Your task to perform on an android device: Check the news Image 0: 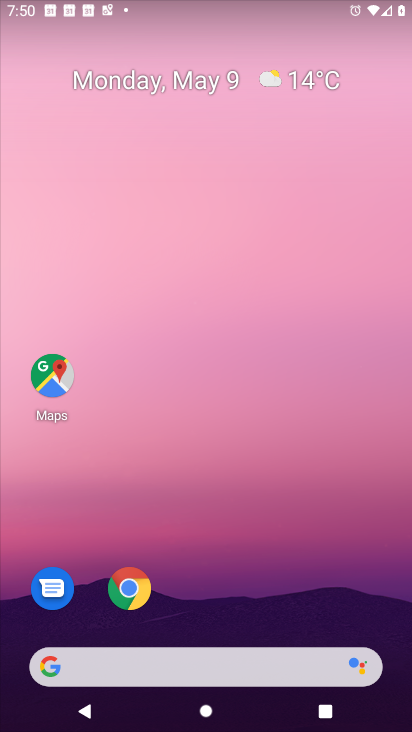
Step 0: drag from (367, 621) to (278, 145)
Your task to perform on an android device: Check the news Image 1: 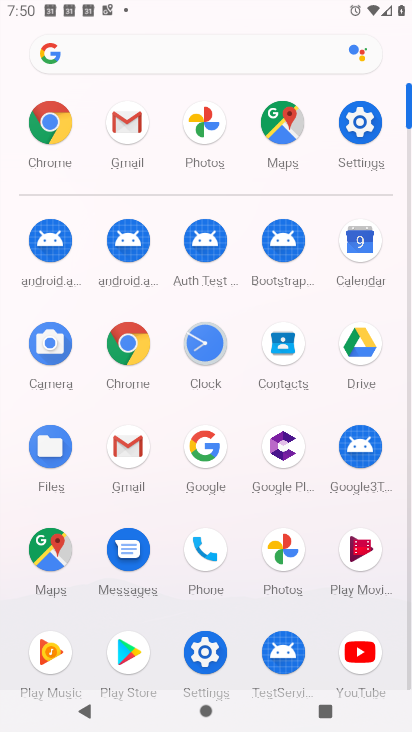
Step 1: click (132, 365)
Your task to perform on an android device: Check the news Image 2: 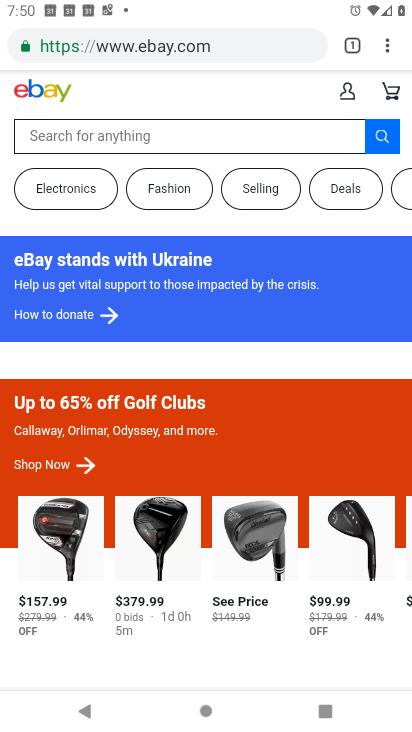
Step 2: press back button
Your task to perform on an android device: Check the news Image 3: 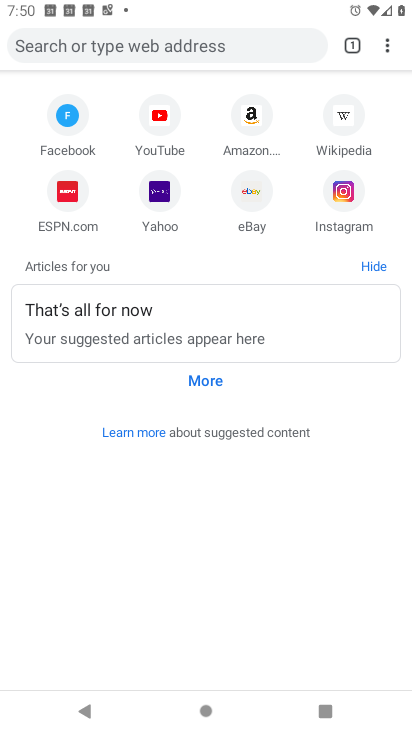
Step 3: click (201, 377)
Your task to perform on an android device: Check the news Image 4: 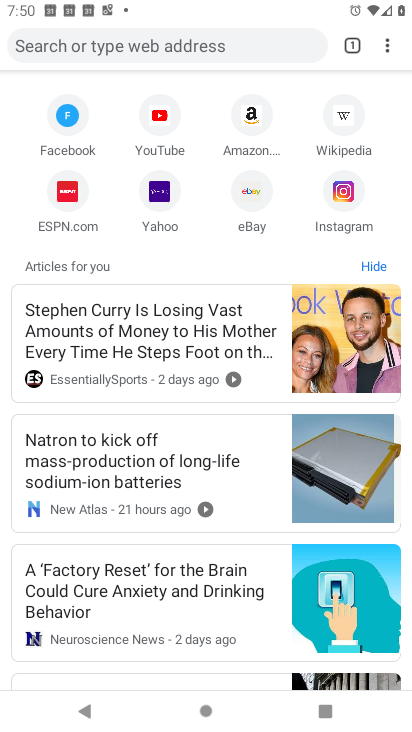
Step 4: click (132, 490)
Your task to perform on an android device: Check the news Image 5: 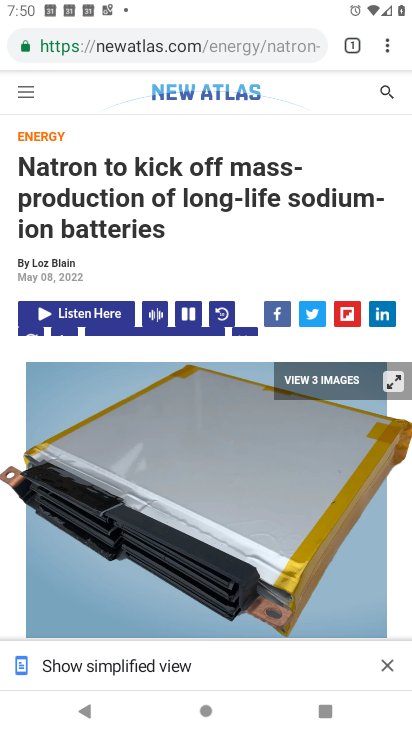
Step 5: task complete